Your task to perform on an android device: install app "Yahoo Mail" Image 0: 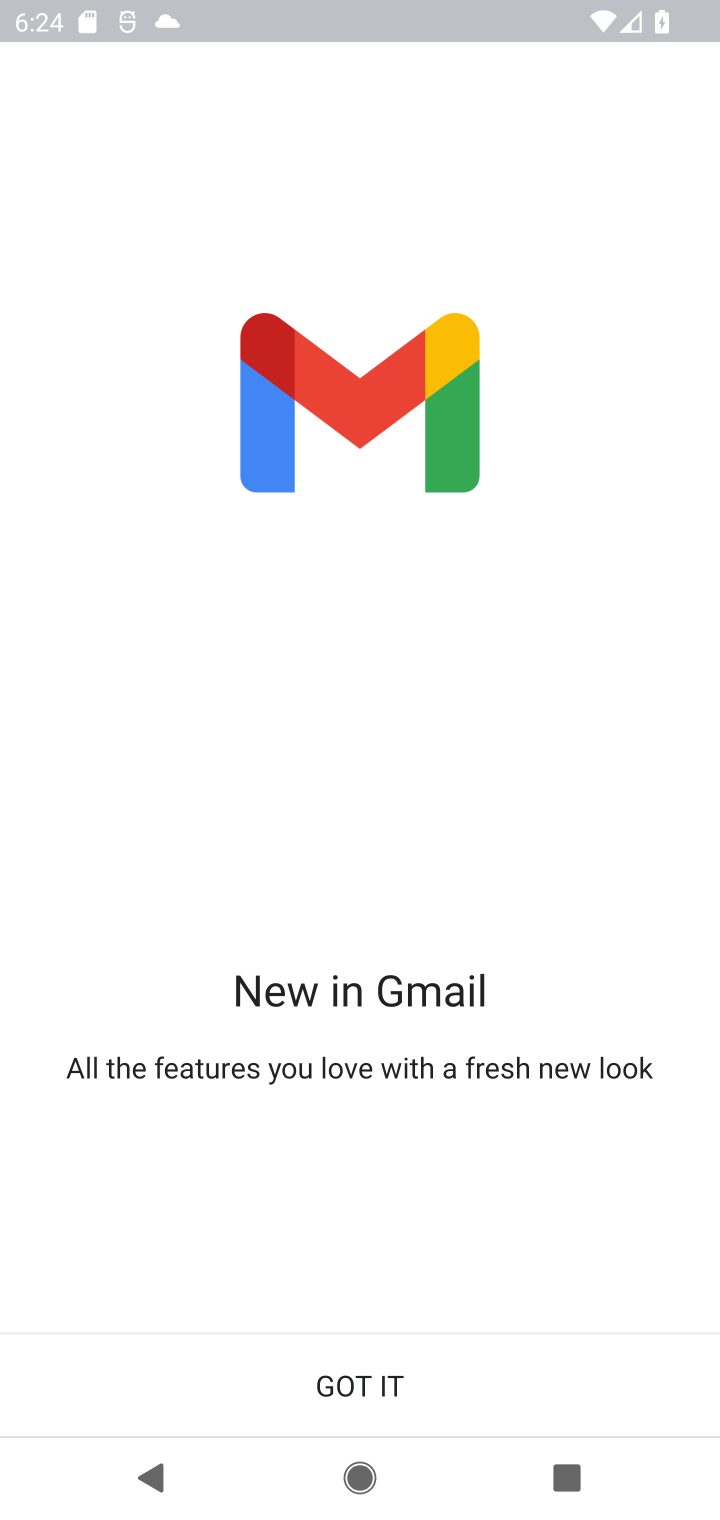
Step 0: press home button
Your task to perform on an android device: install app "Yahoo Mail" Image 1: 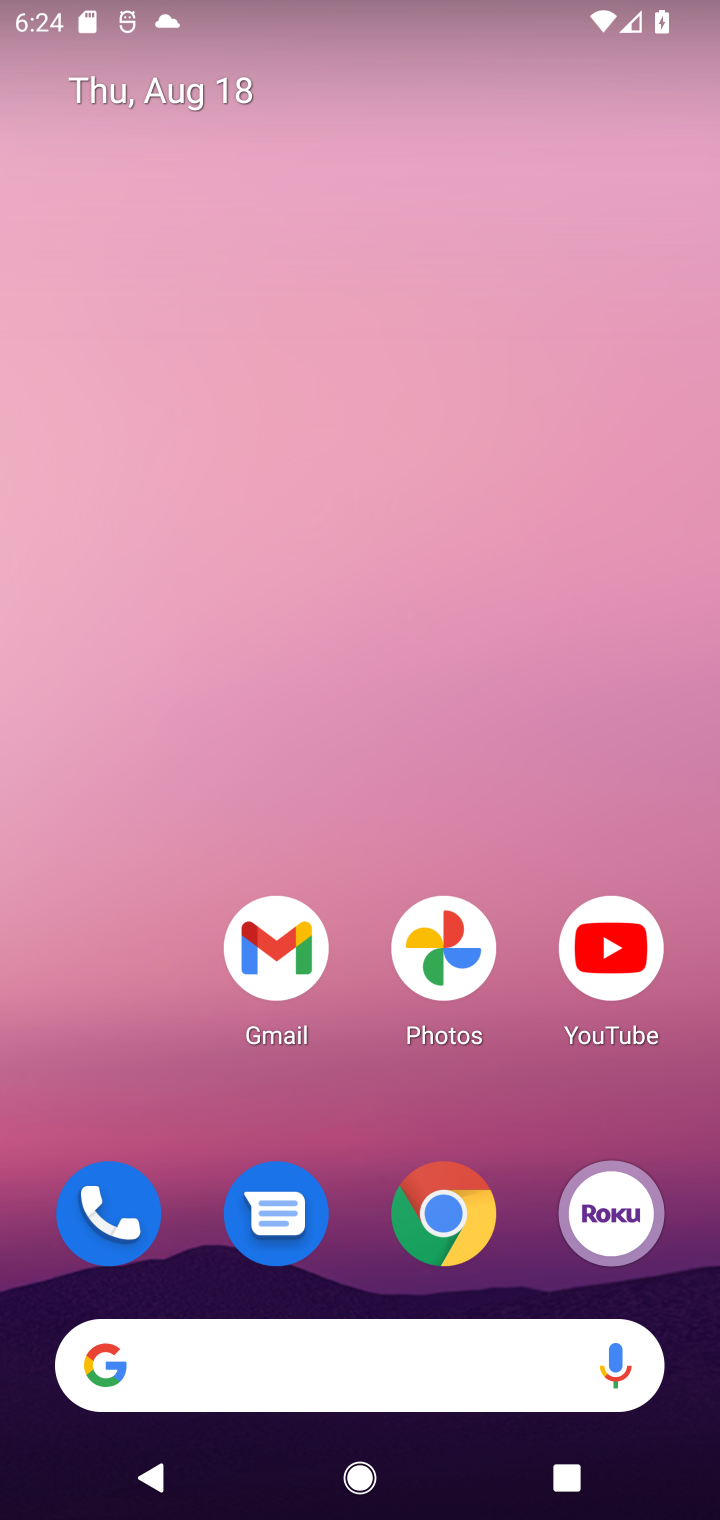
Step 1: drag from (355, 1284) to (433, 19)
Your task to perform on an android device: install app "Yahoo Mail" Image 2: 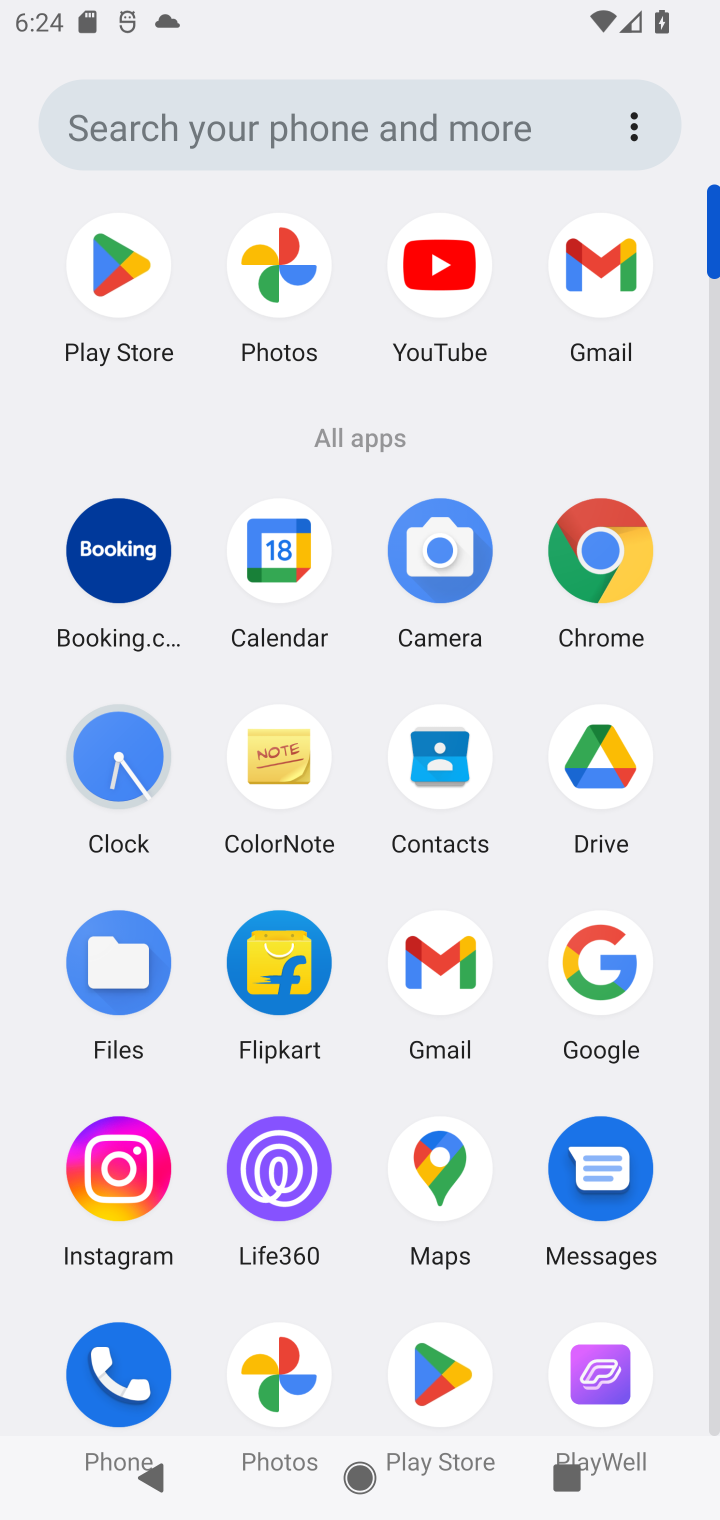
Step 2: click (440, 1358)
Your task to perform on an android device: install app "Yahoo Mail" Image 3: 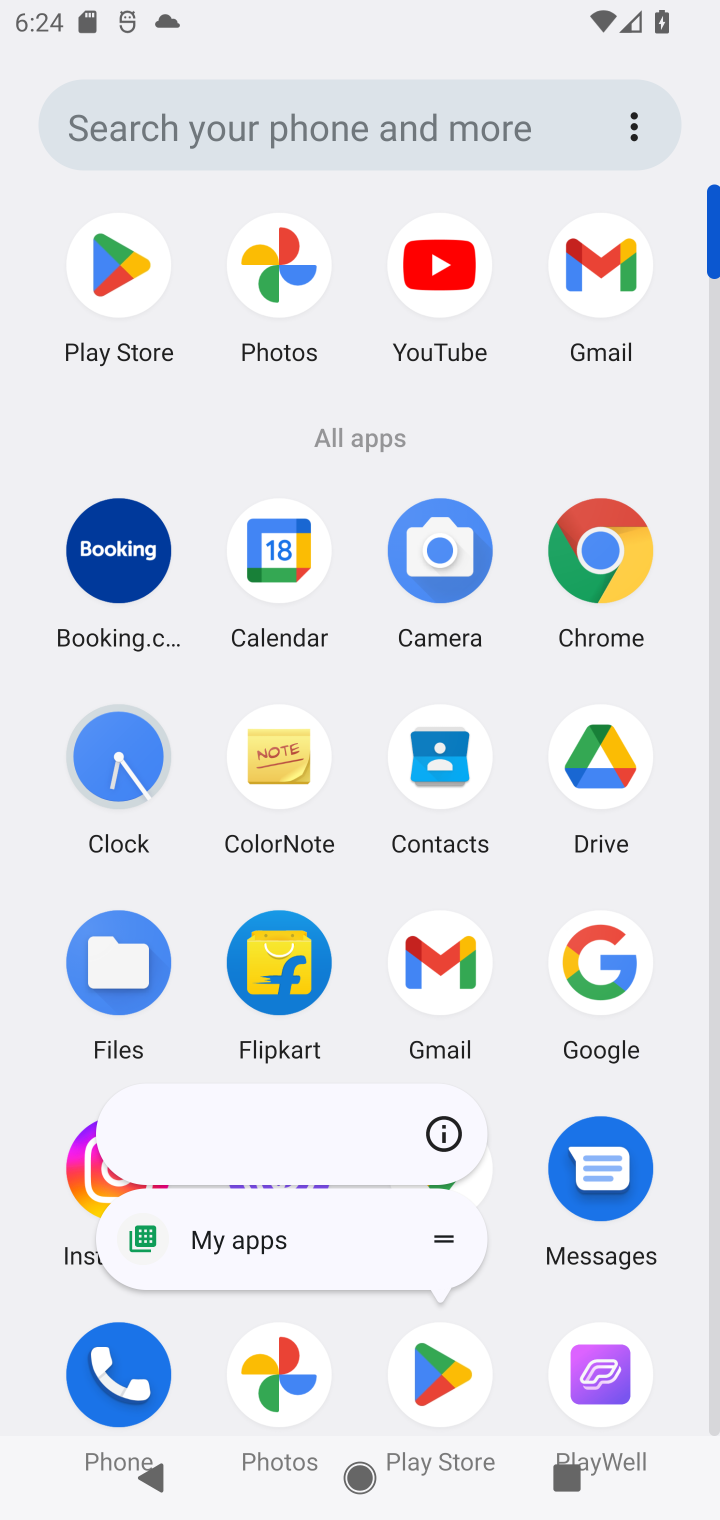
Step 3: click (434, 1367)
Your task to perform on an android device: install app "Yahoo Mail" Image 4: 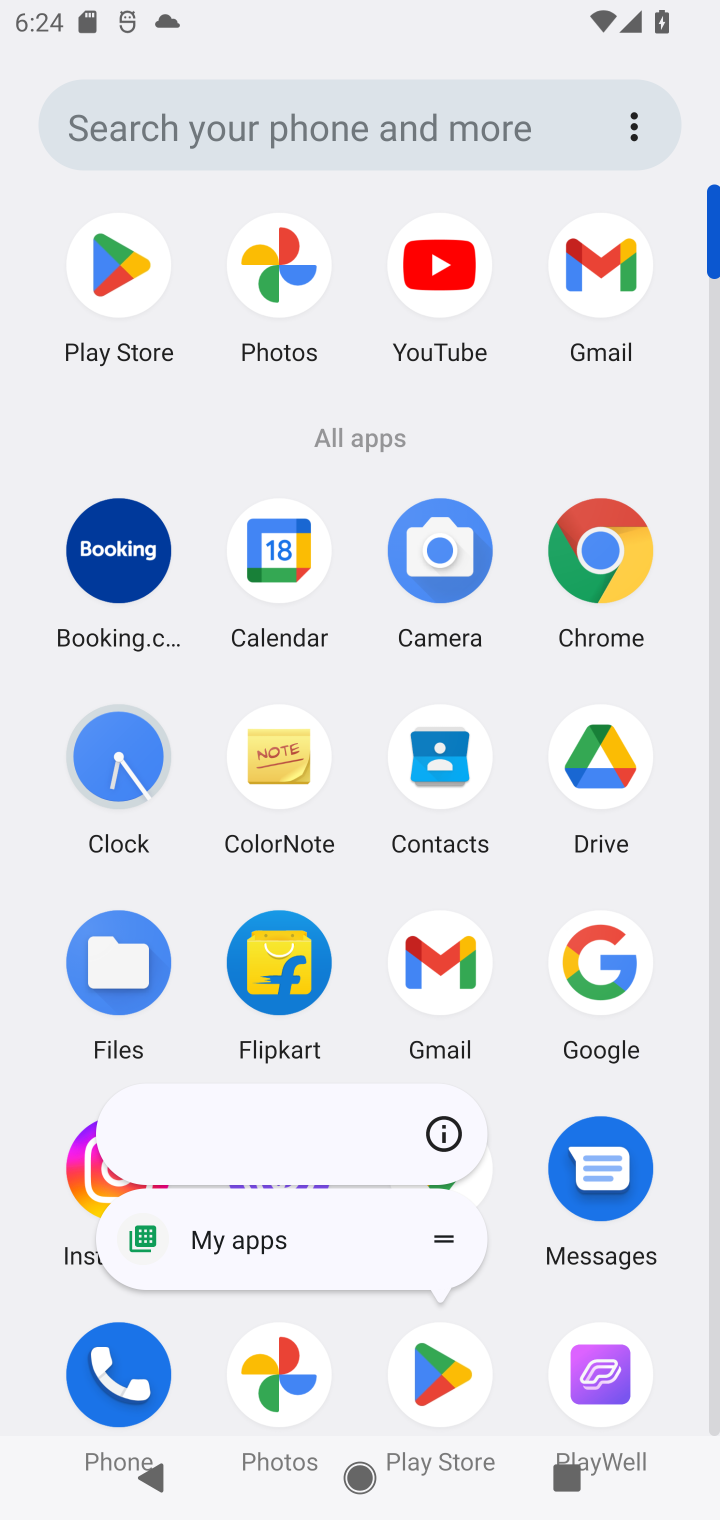
Step 4: click (434, 1367)
Your task to perform on an android device: install app "Yahoo Mail" Image 5: 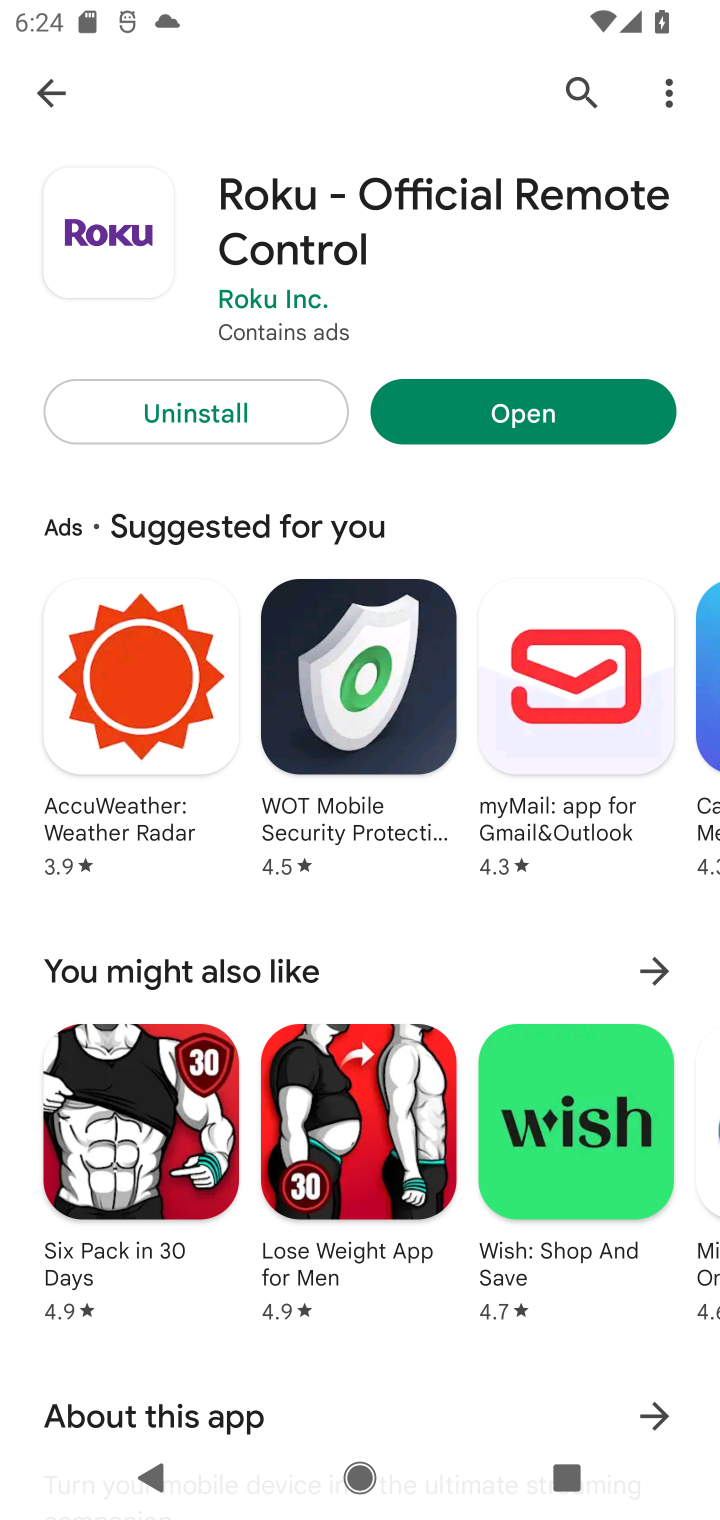
Step 5: click (52, 90)
Your task to perform on an android device: install app "Yahoo Mail" Image 6: 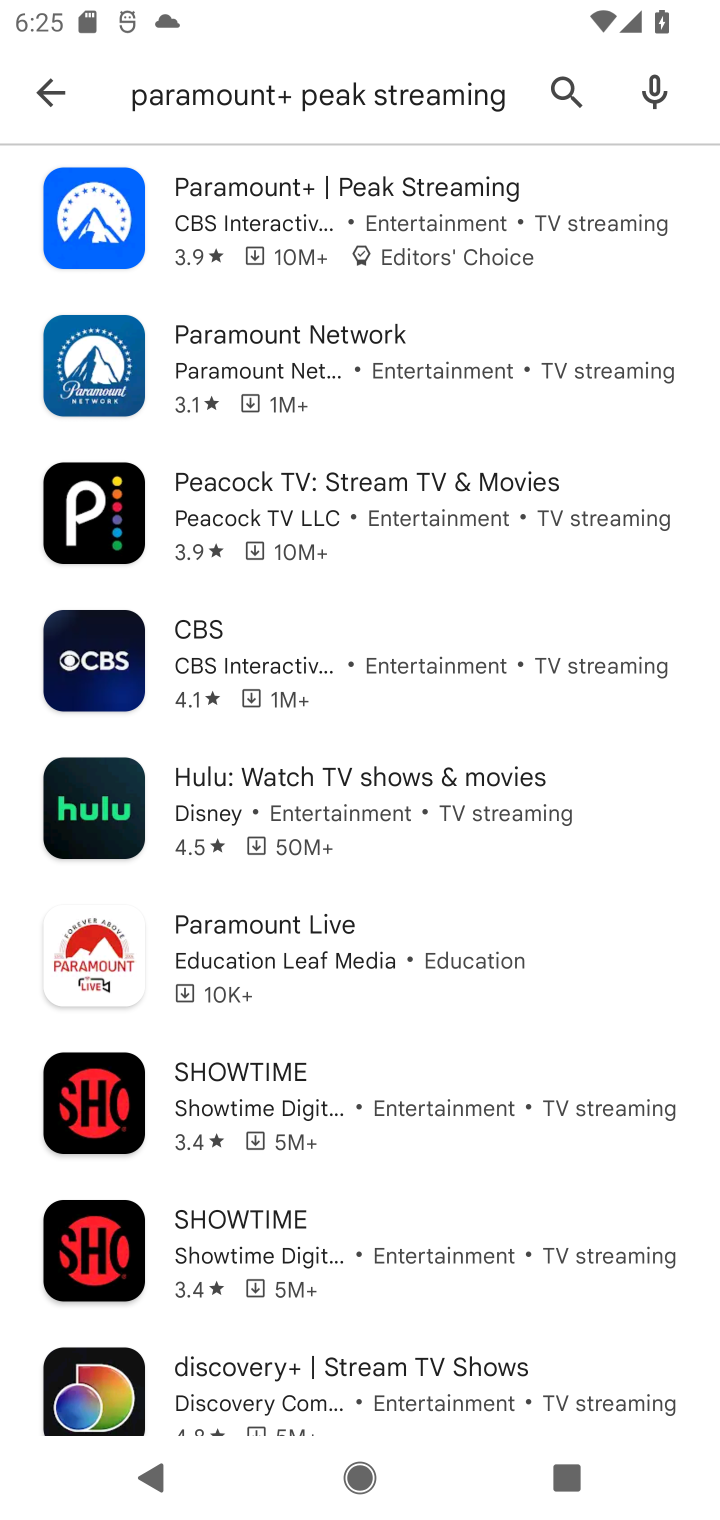
Step 6: click (560, 83)
Your task to perform on an android device: install app "Yahoo Mail" Image 7: 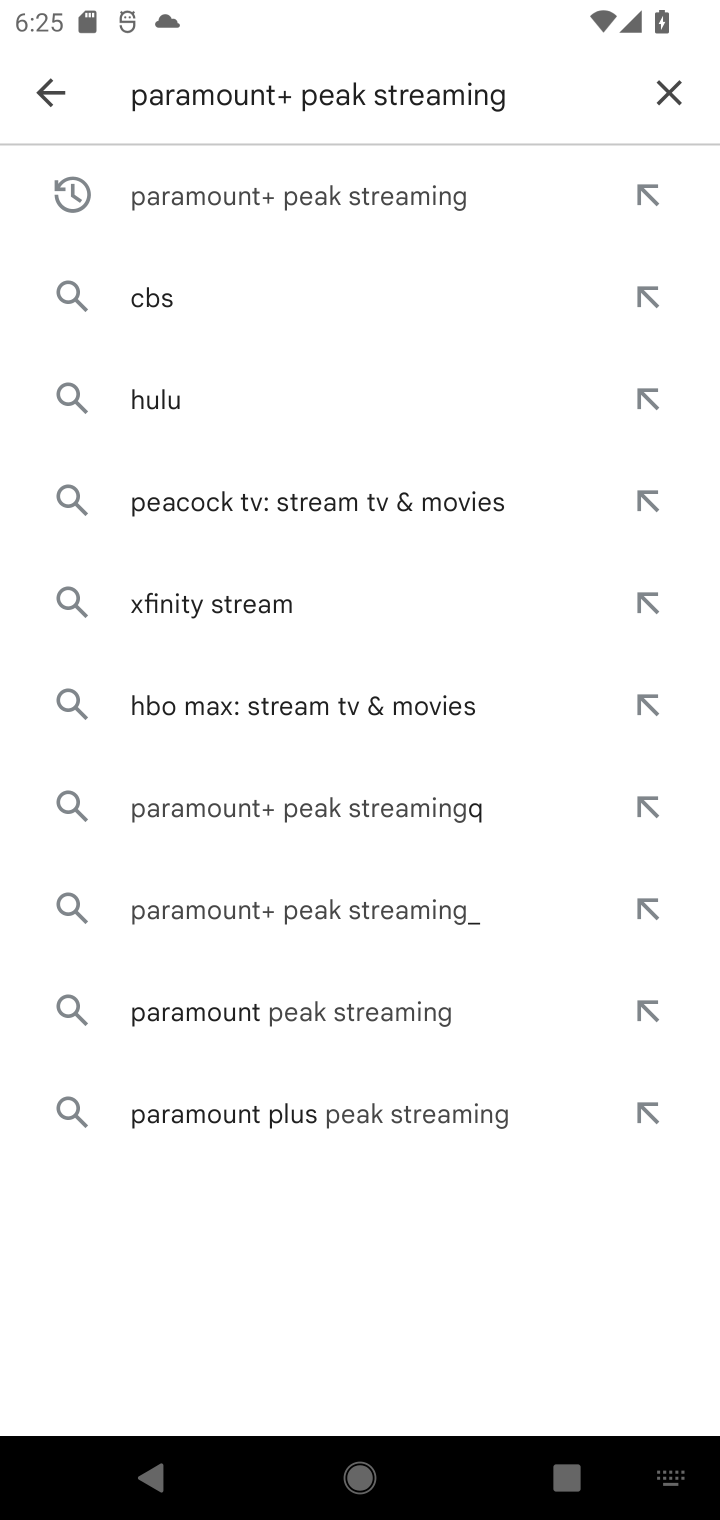
Step 7: click (672, 94)
Your task to perform on an android device: install app "Yahoo Mail" Image 8: 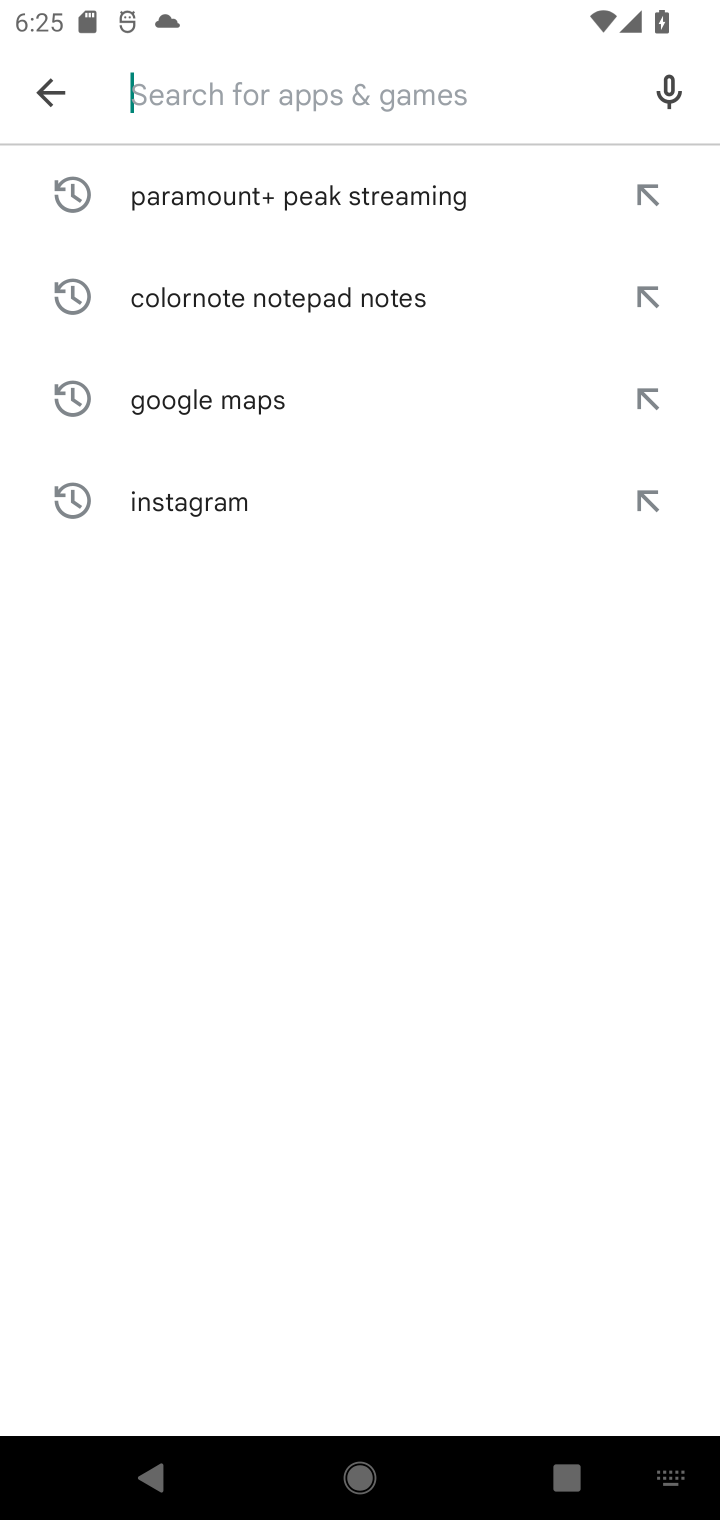
Step 8: type "Yahoo Mail"
Your task to perform on an android device: install app "Yahoo Mail" Image 9: 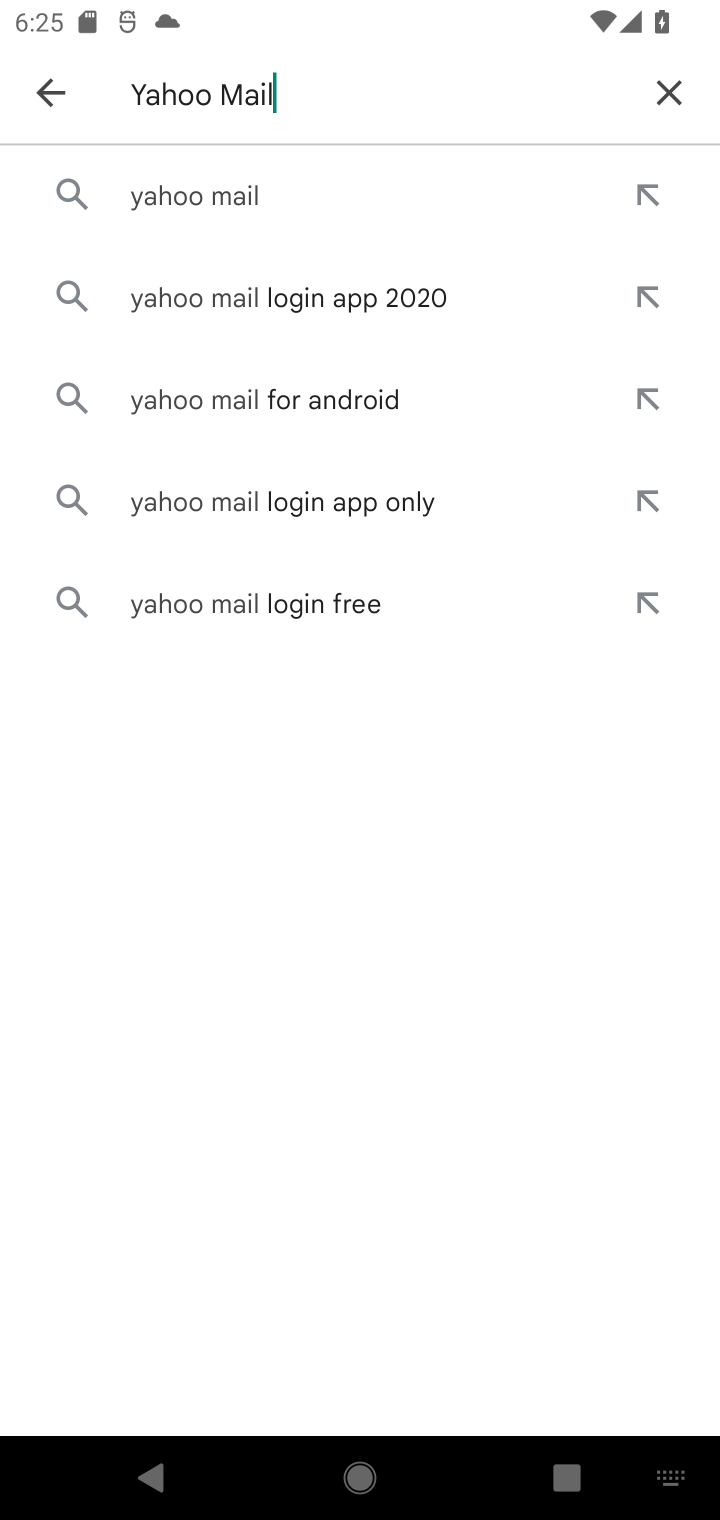
Step 9: click (280, 185)
Your task to perform on an android device: install app "Yahoo Mail" Image 10: 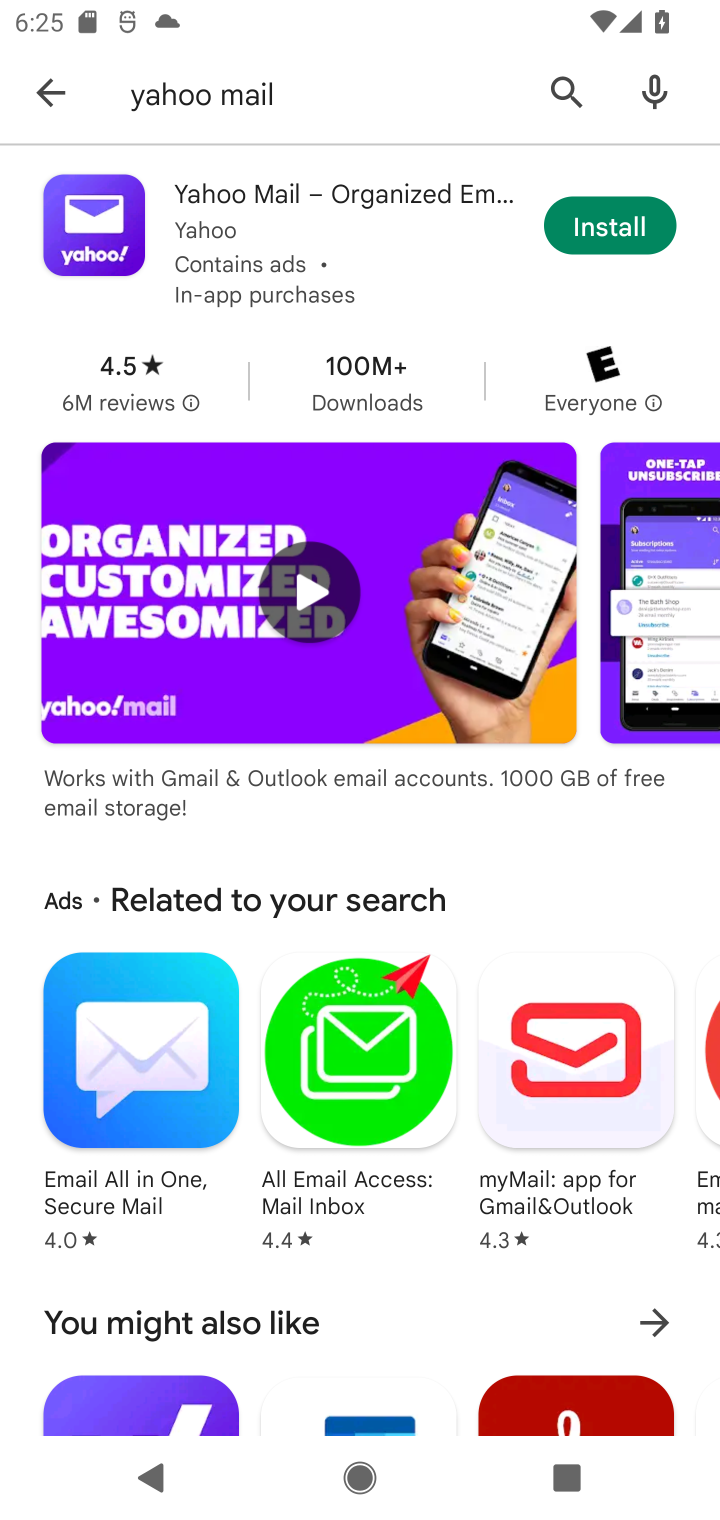
Step 10: click (611, 220)
Your task to perform on an android device: install app "Yahoo Mail" Image 11: 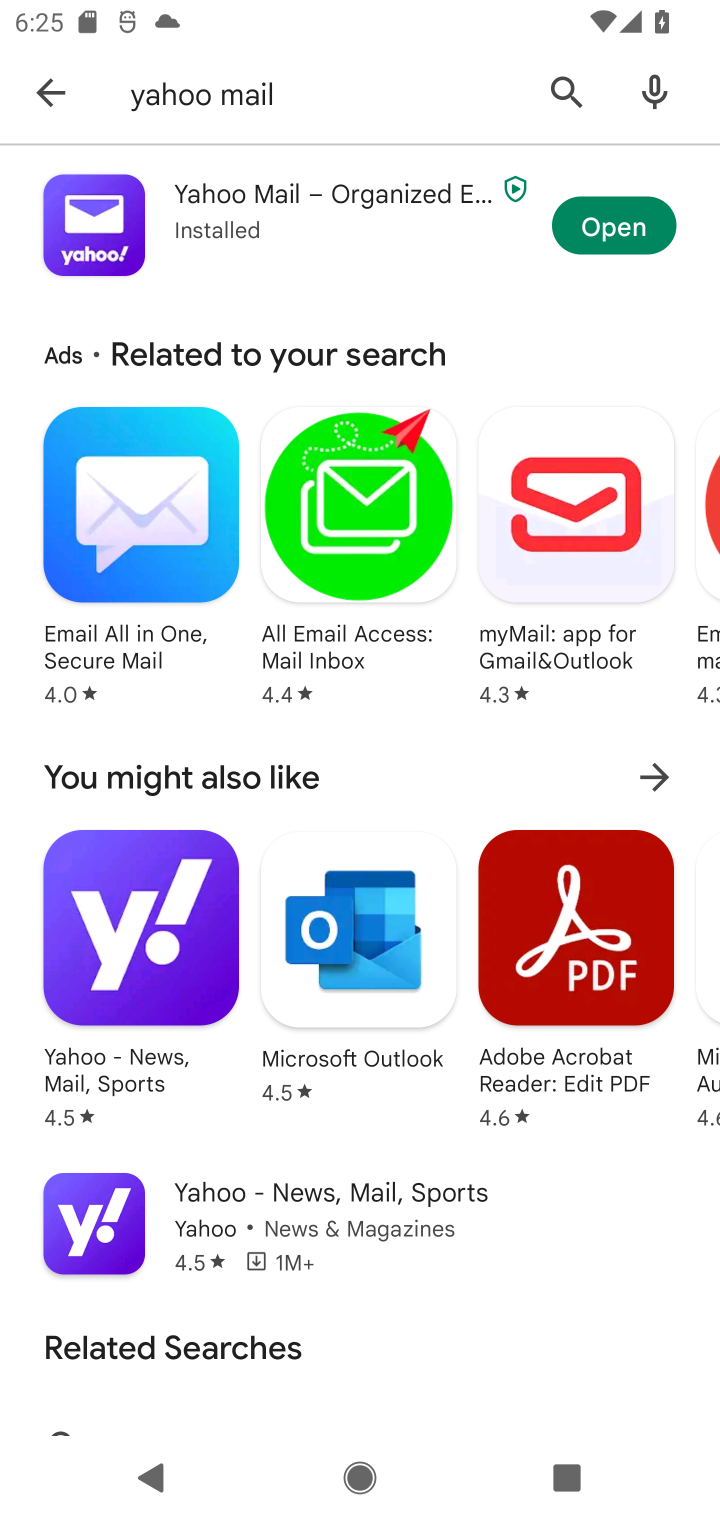
Step 11: click (617, 223)
Your task to perform on an android device: install app "Yahoo Mail" Image 12: 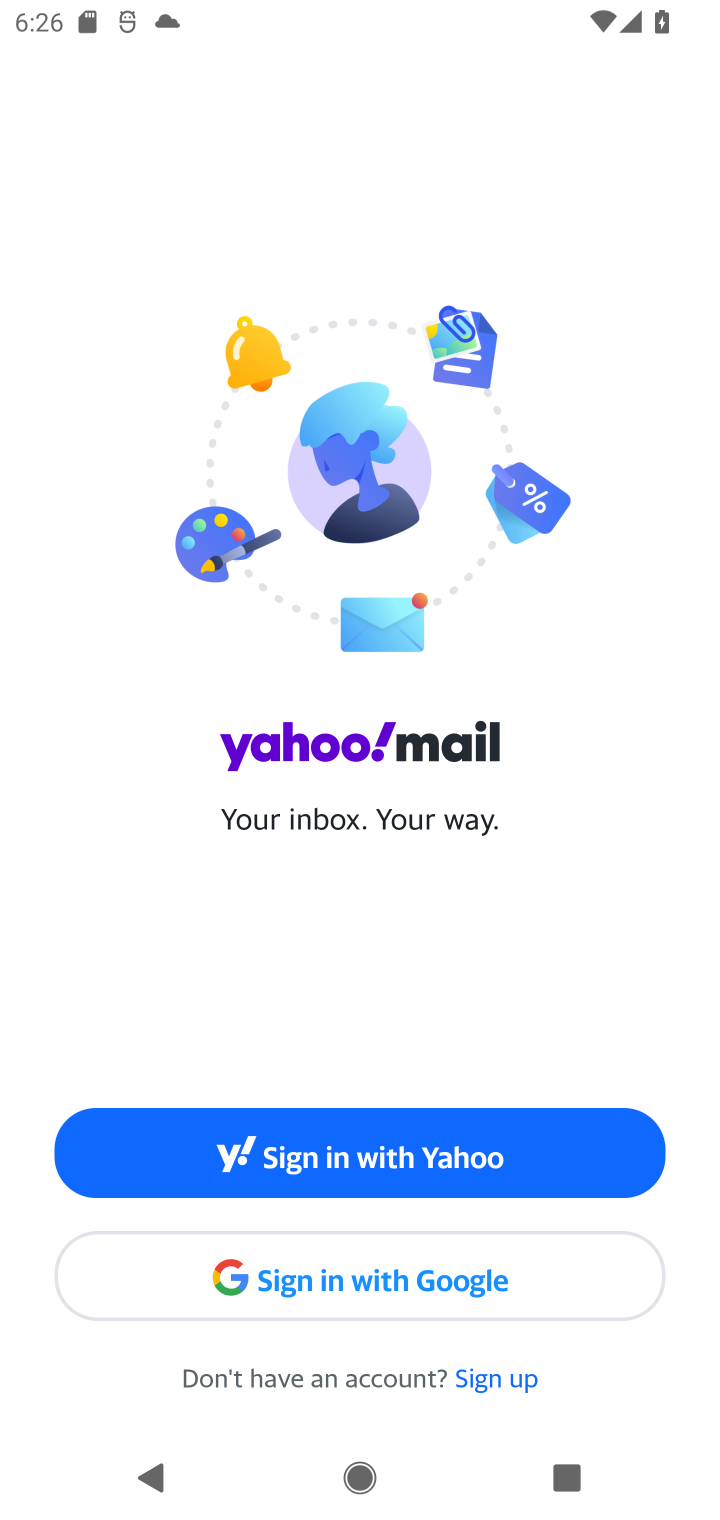
Step 12: click (371, 1269)
Your task to perform on an android device: install app "Yahoo Mail" Image 13: 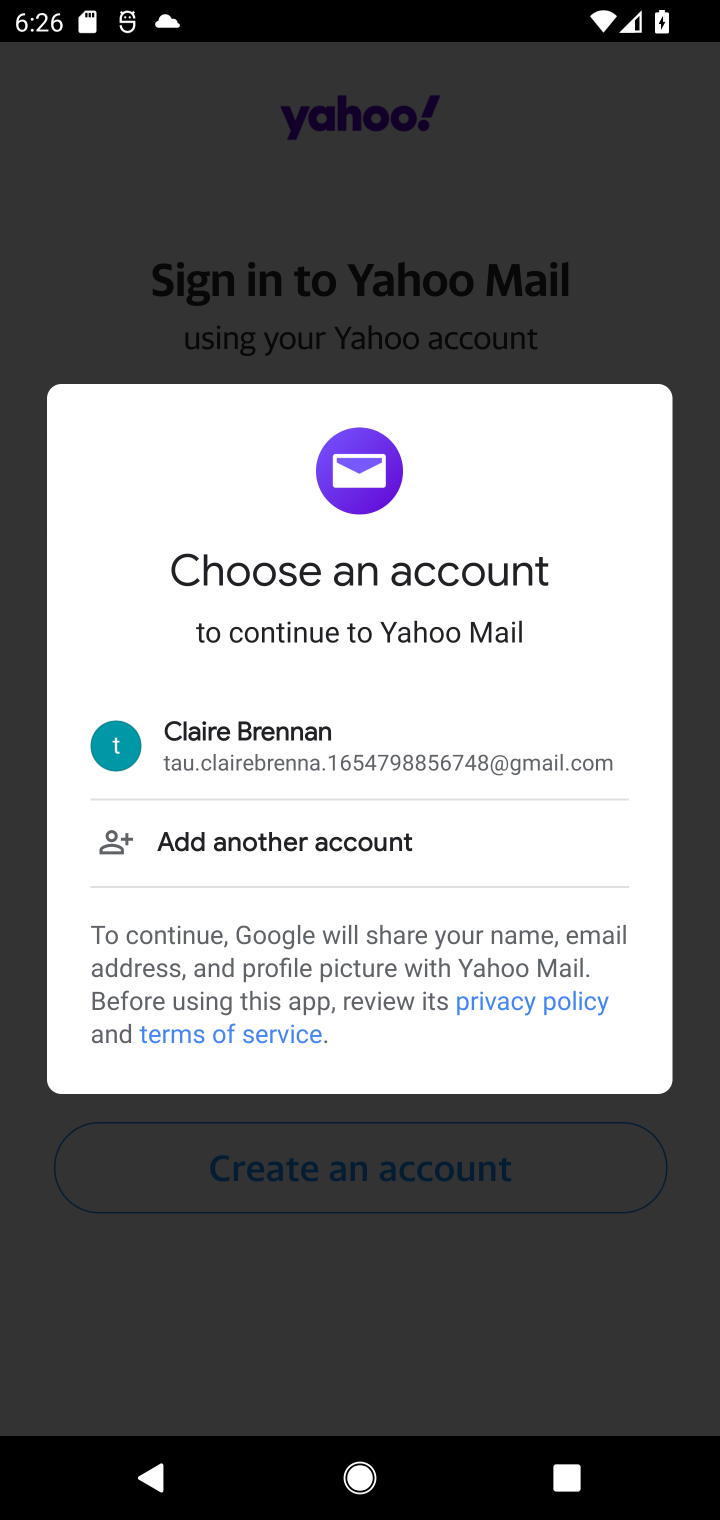
Step 13: click (260, 743)
Your task to perform on an android device: install app "Yahoo Mail" Image 14: 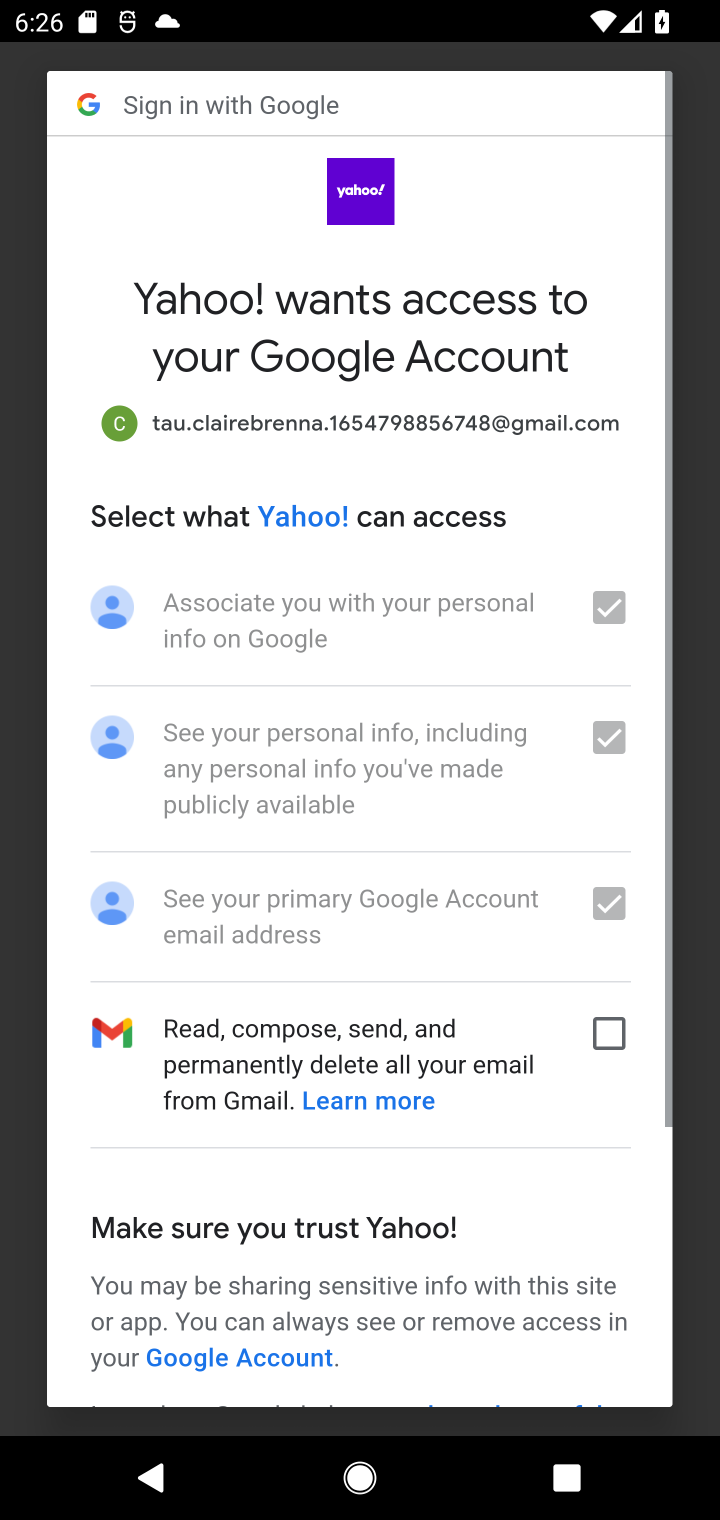
Step 14: click (607, 1031)
Your task to perform on an android device: install app "Yahoo Mail" Image 15: 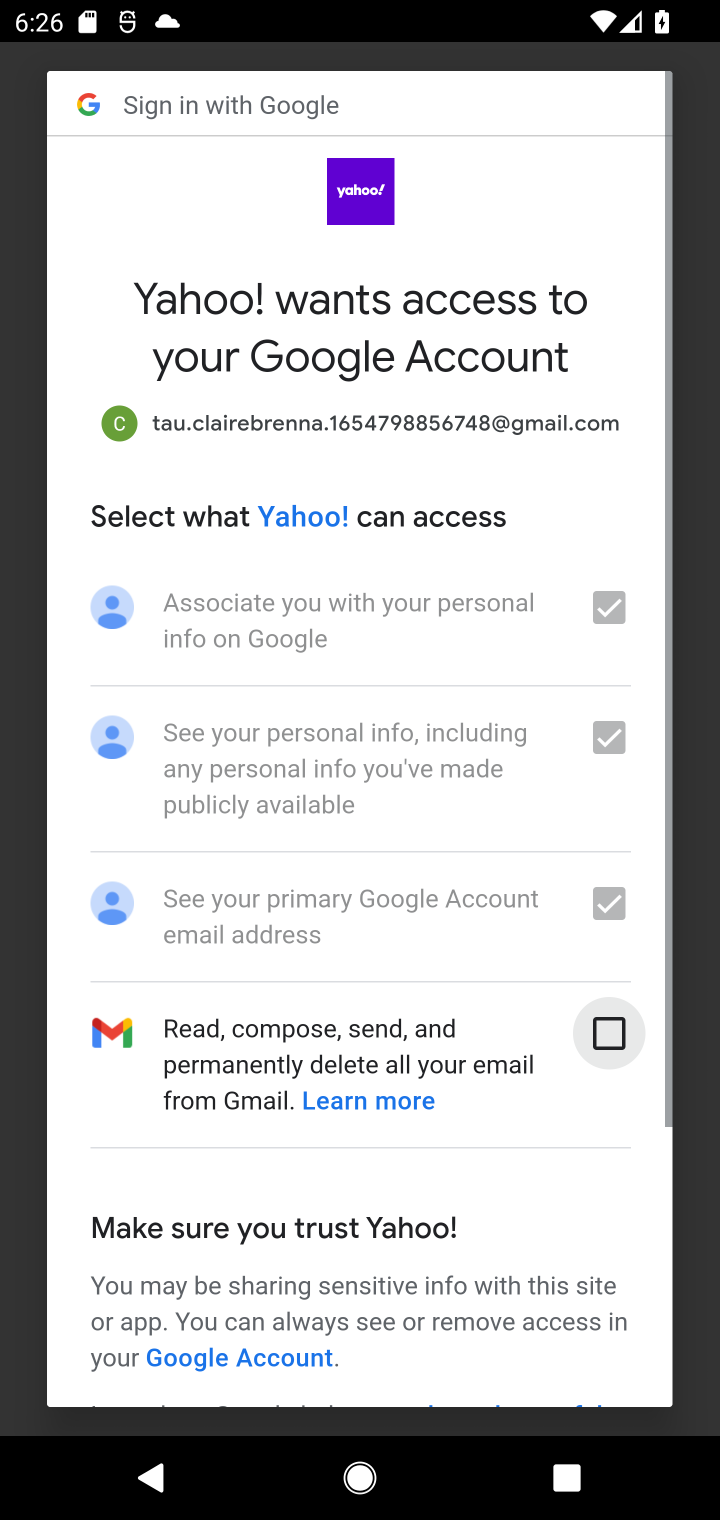
Step 15: drag from (343, 1246) to (375, 60)
Your task to perform on an android device: install app "Yahoo Mail" Image 16: 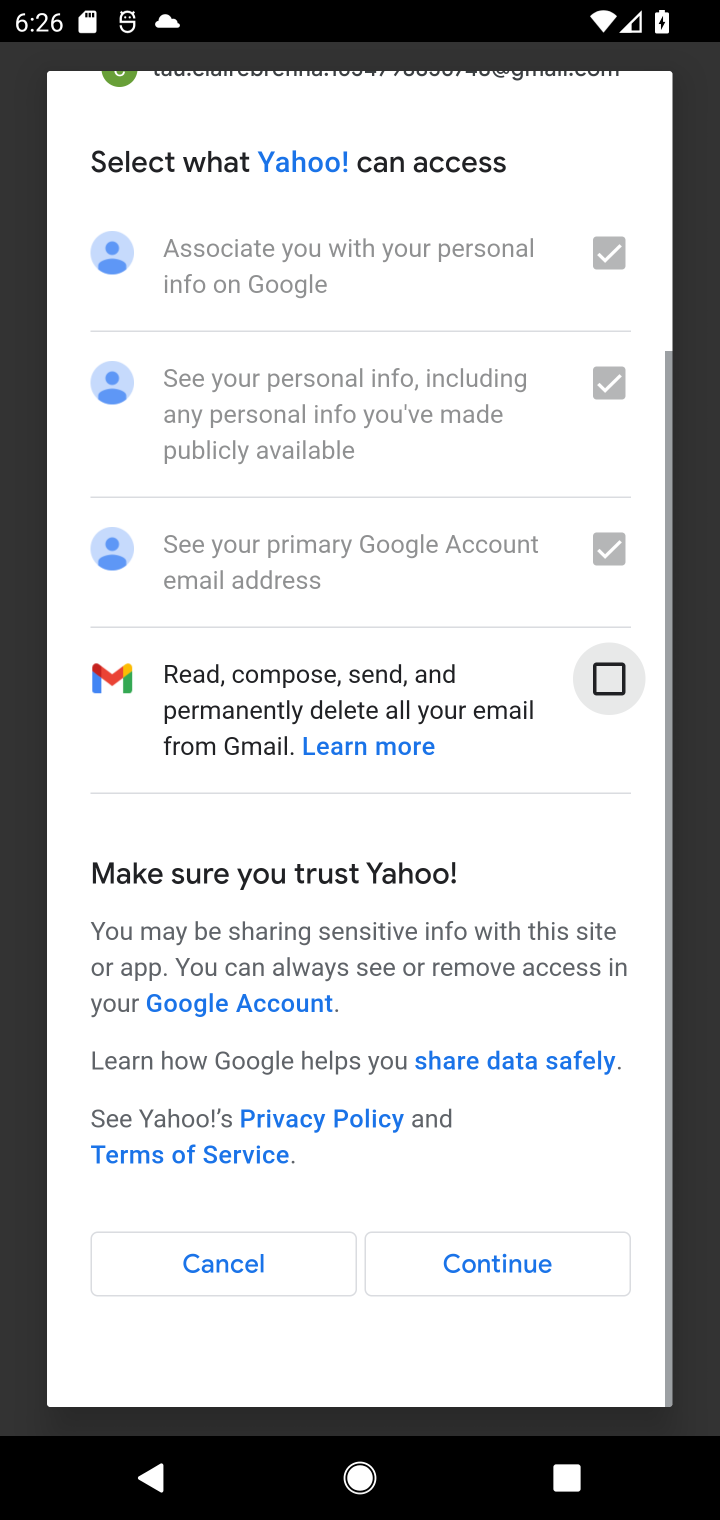
Step 16: click (481, 1266)
Your task to perform on an android device: install app "Yahoo Mail" Image 17: 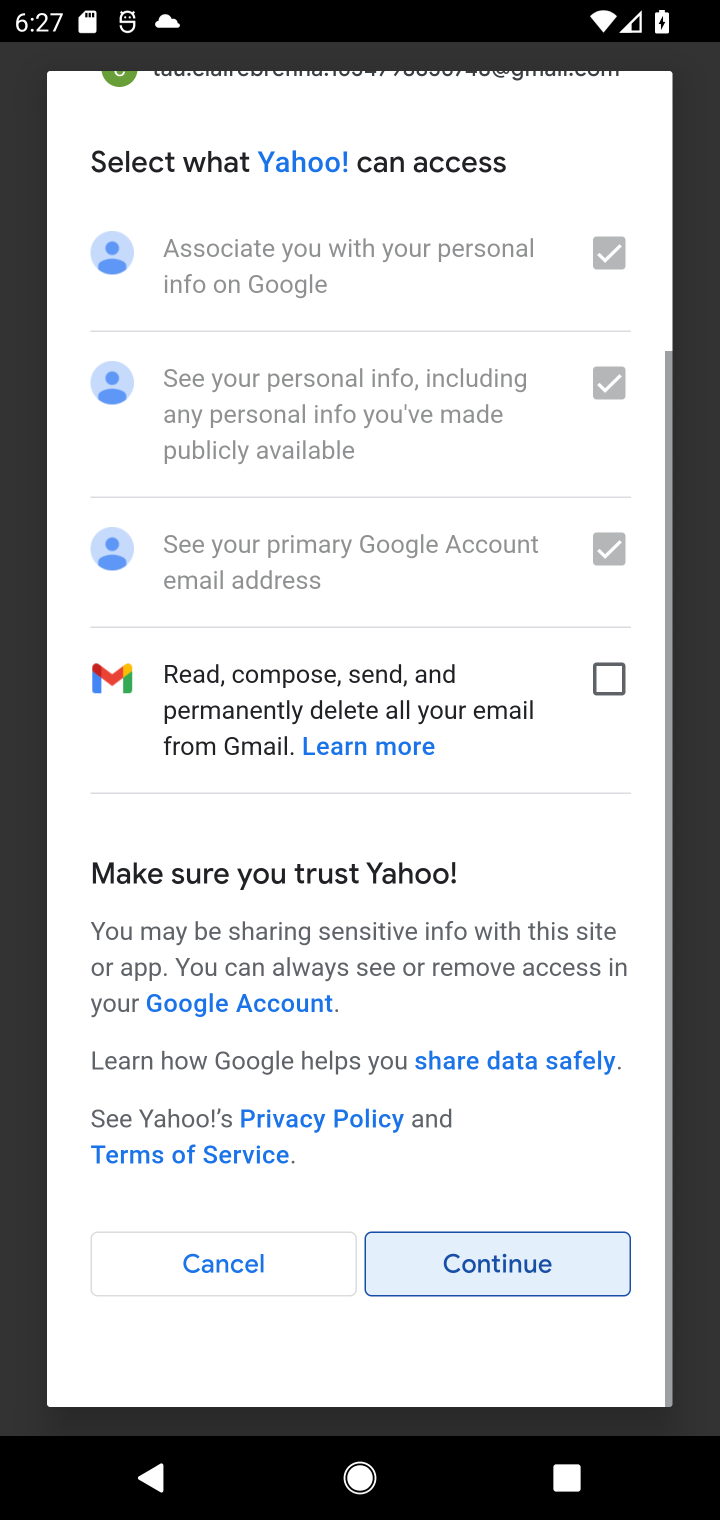
Step 17: click (499, 1265)
Your task to perform on an android device: install app "Yahoo Mail" Image 18: 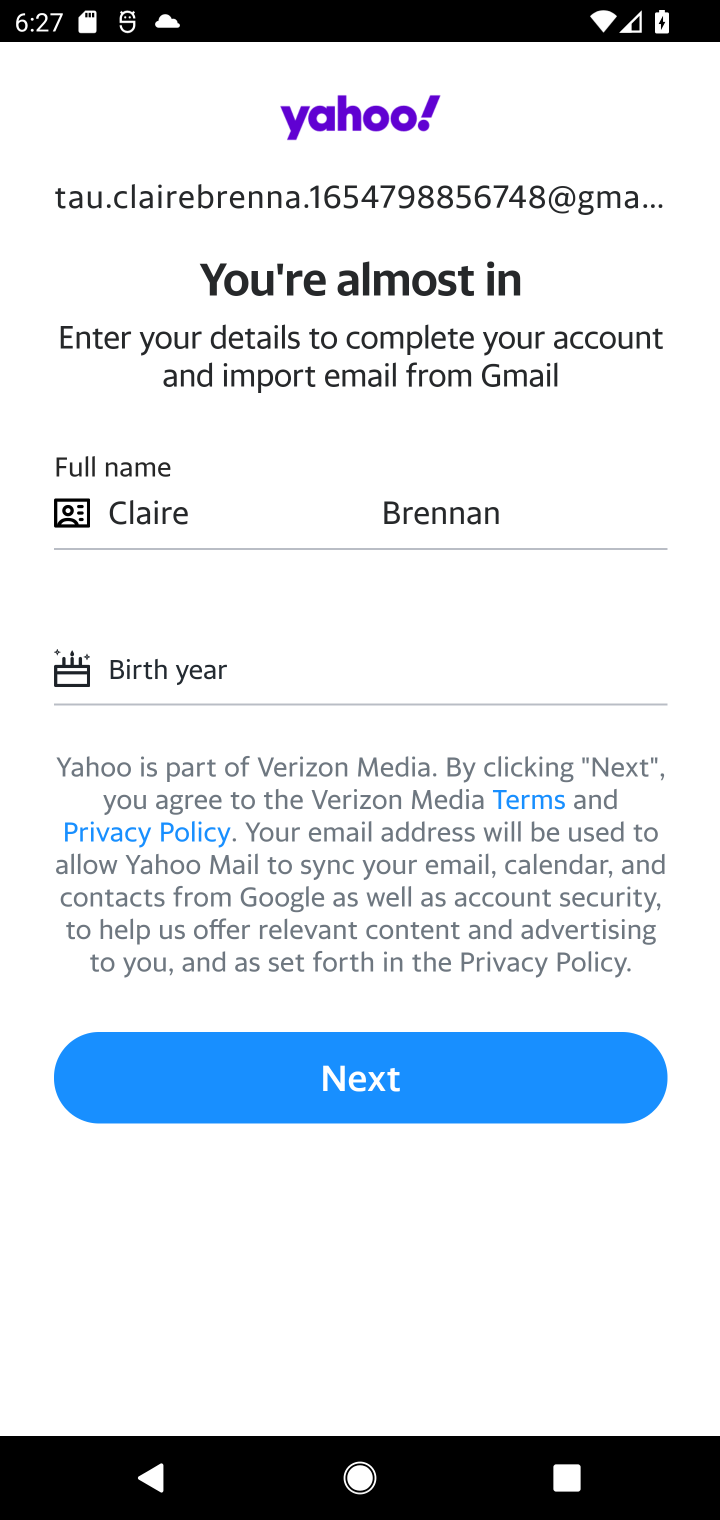
Step 18: click (345, 1088)
Your task to perform on an android device: install app "Yahoo Mail" Image 19: 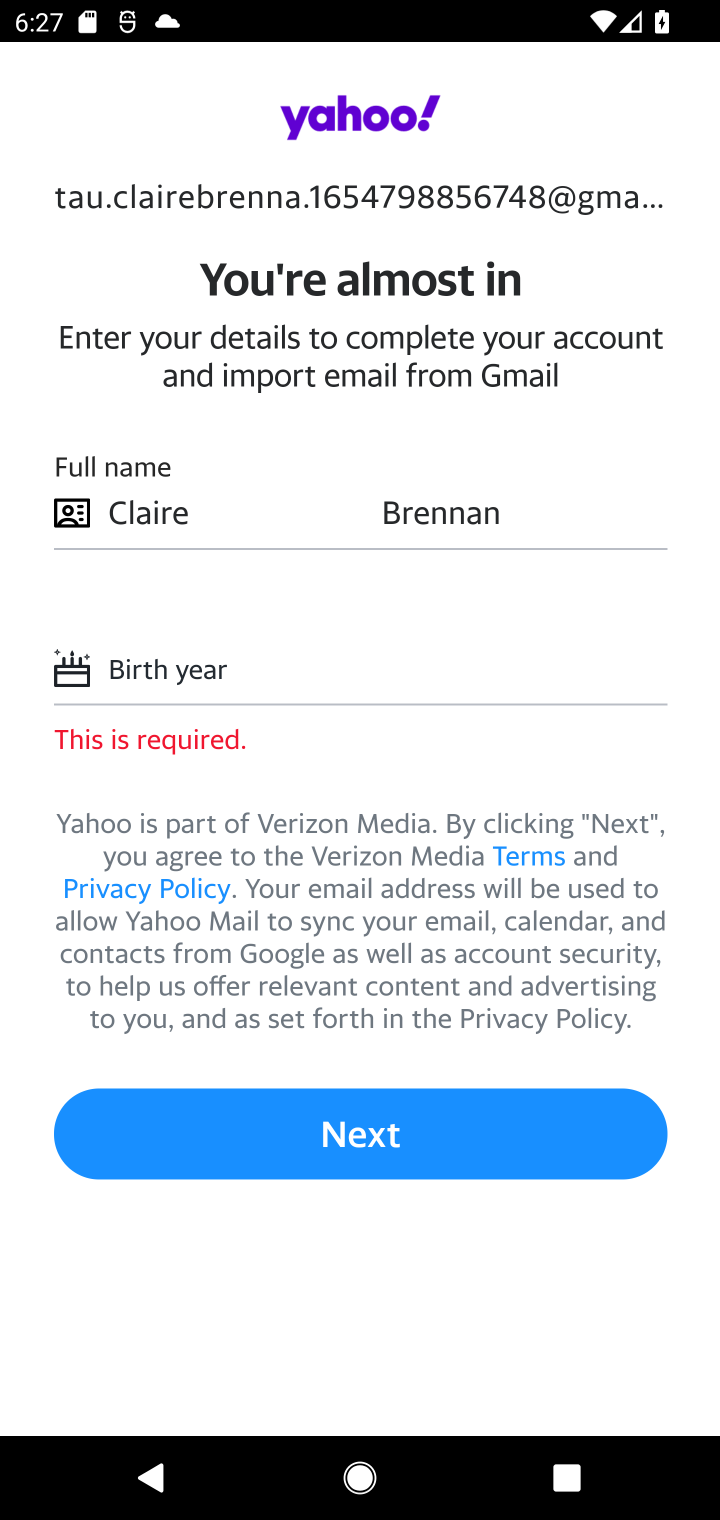
Step 19: click (68, 670)
Your task to perform on an android device: install app "Yahoo Mail" Image 20: 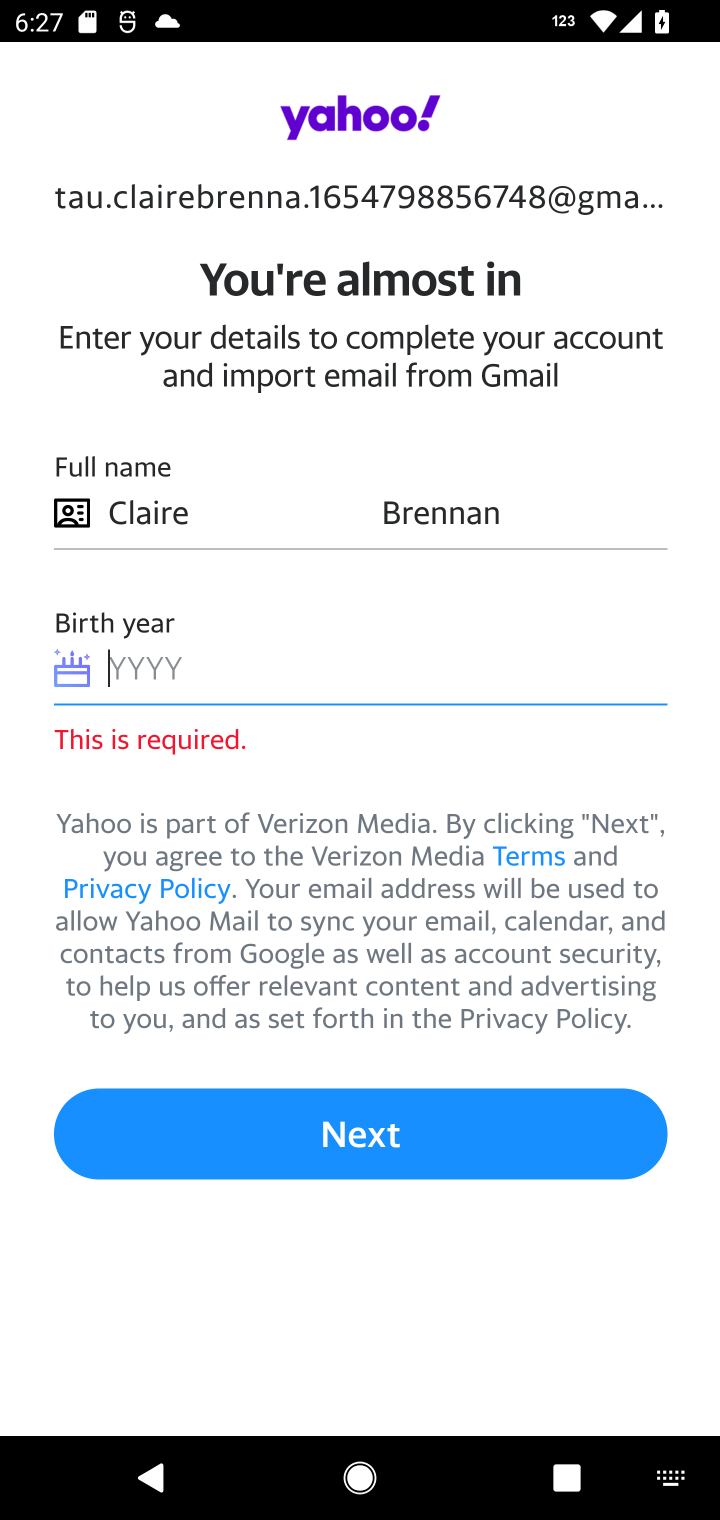
Step 20: type "1998"
Your task to perform on an android device: install app "Yahoo Mail" Image 21: 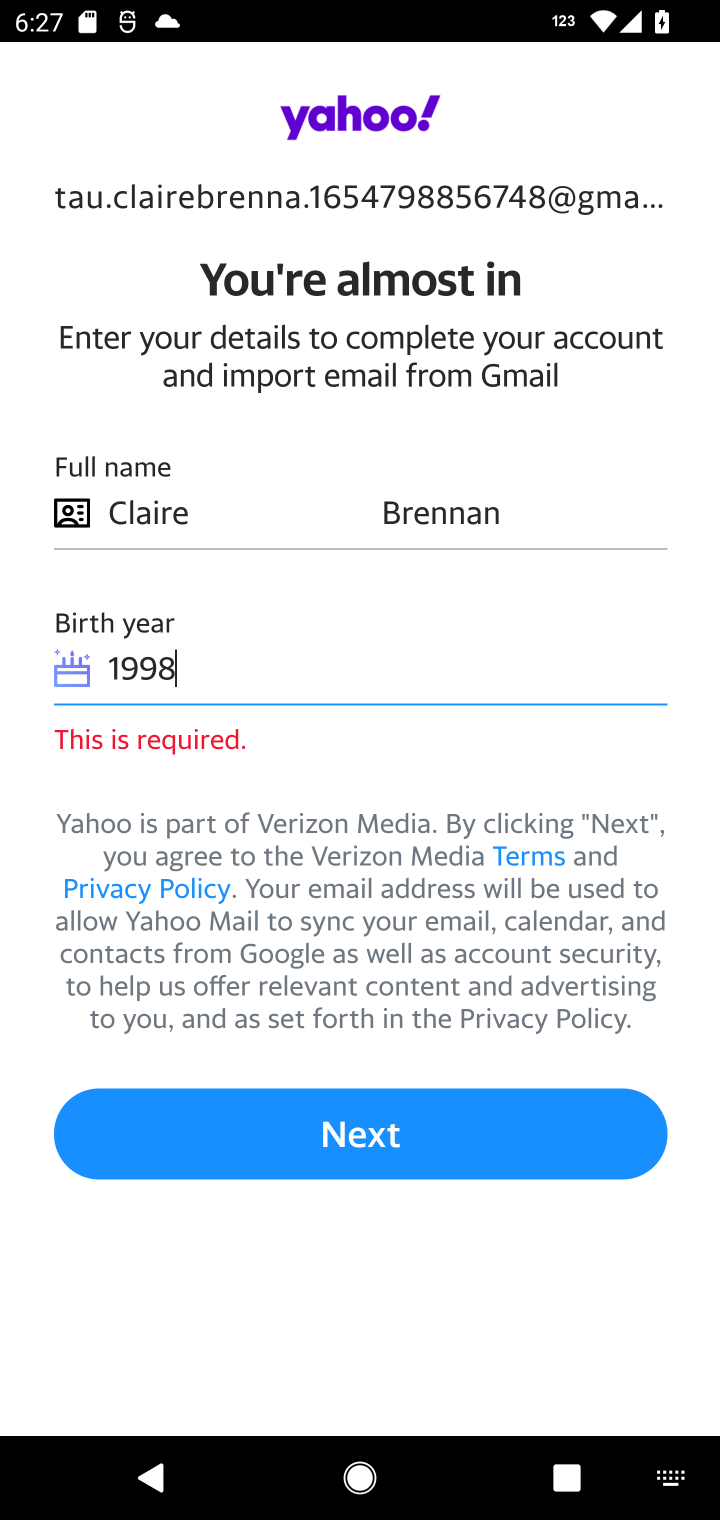
Step 21: click (385, 1159)
Your task to perform on an android device: install app "Yahoo Mail" Image 22: 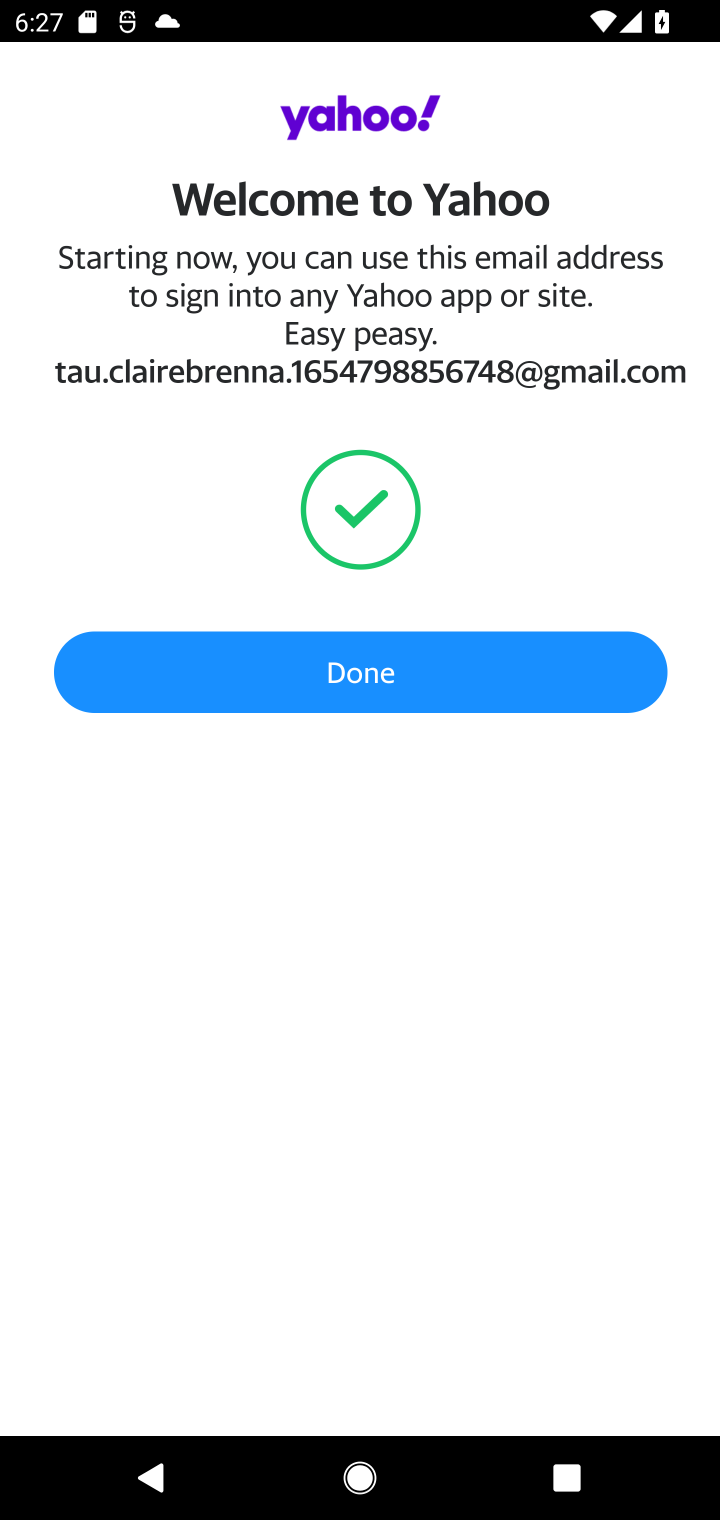
Step 22: click (362, 662)
Your task to perform on an android device: install app "Yahoo Mail" Image 23: 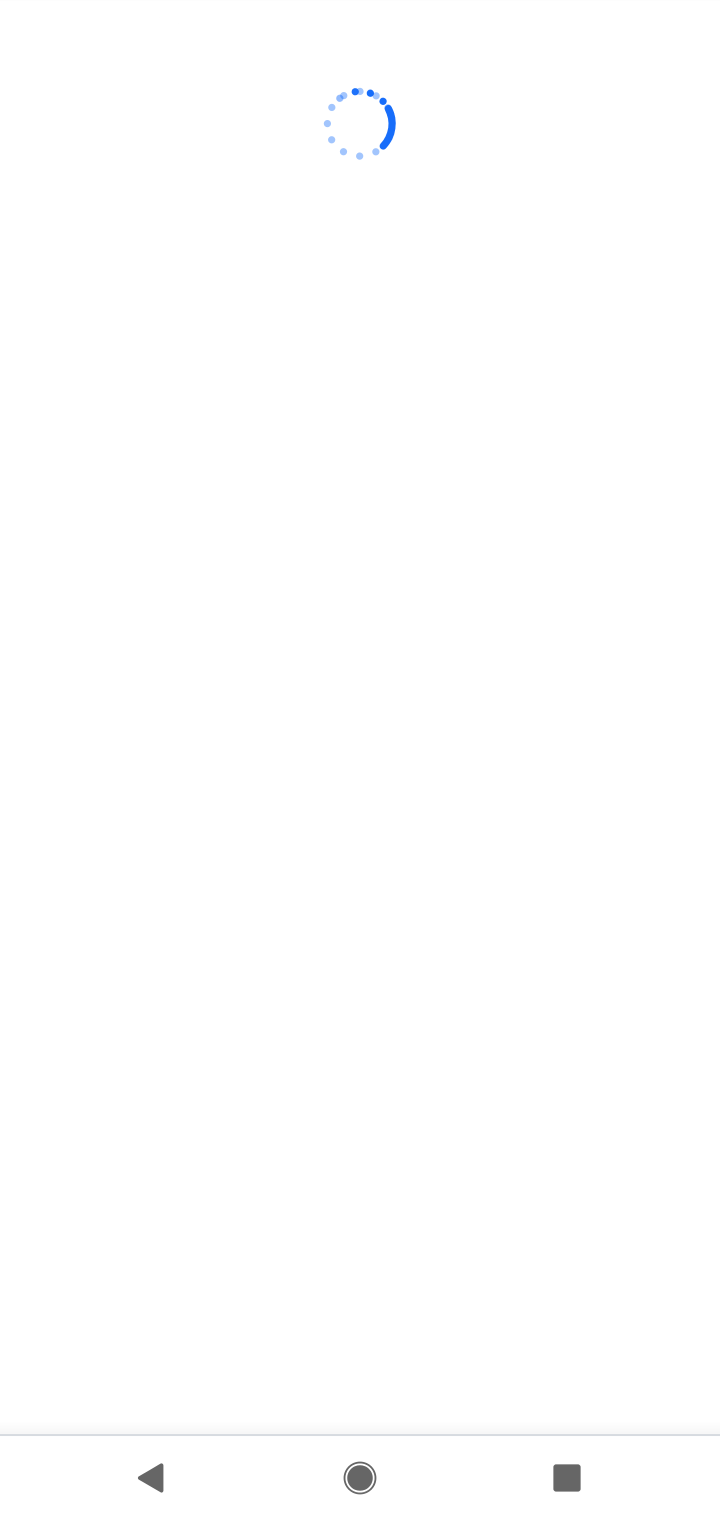
Step 23: task complete